Your task to perform on an android device: snooze an email in the gmail app Image 0: 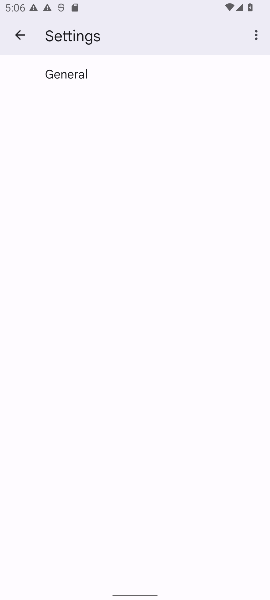
Step 0: press home button
Your task to perform on an android device: snooze an email in the gmail app Image 1: 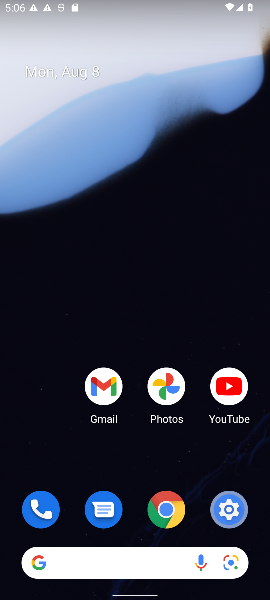
Step 1: click (103, 385)
Your task to perform on an android device: snooze an email in the gmail app Image 2: 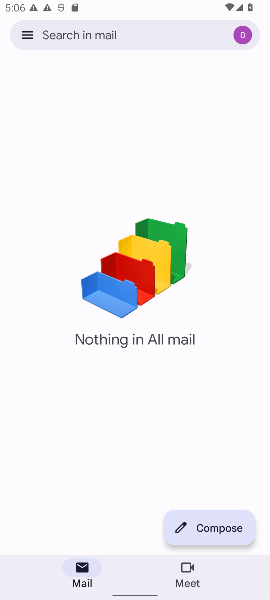
Step 2: click (29, 33)
Your task to perform on an android device: snooze an email in the gmail app Image 3: 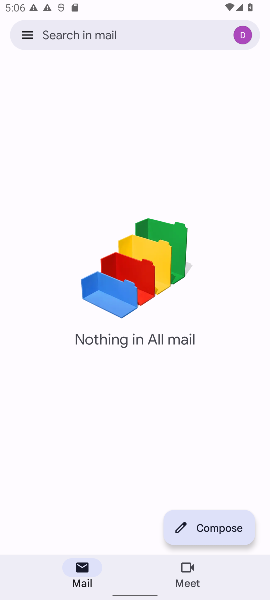
Step 3: click (25, 35)
Your task to perform on an android device: snooze an email in the gmail app Image 4: 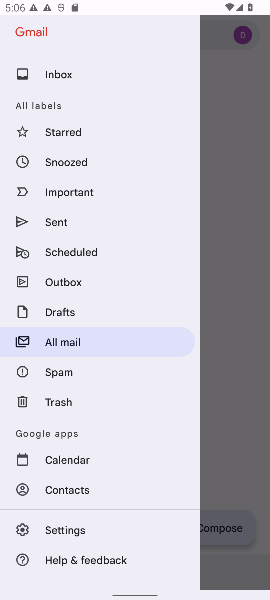
Step 4: click (64, 342)
Your task to perform on an android device: snooze an email in the gmail app Image 5: 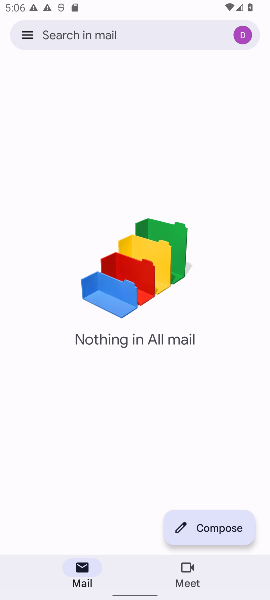
Step 5: task complete